Your task to perform on an android device: toggle notification dots Image 0: 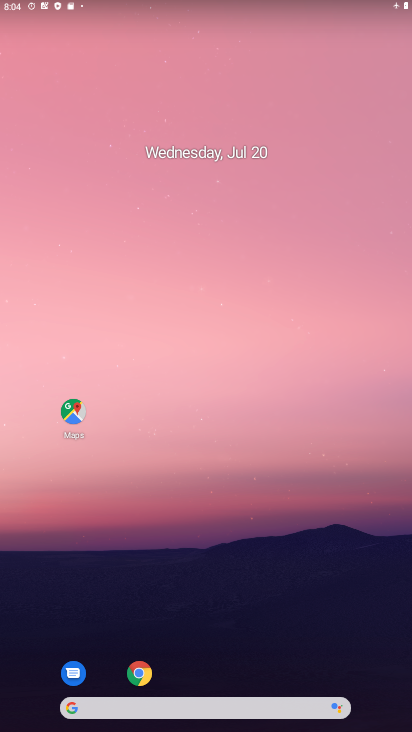
Step 0: drag from (364, 675) to (28, 132)
Your task to perform on an android device: toggle notification dots Image 1: 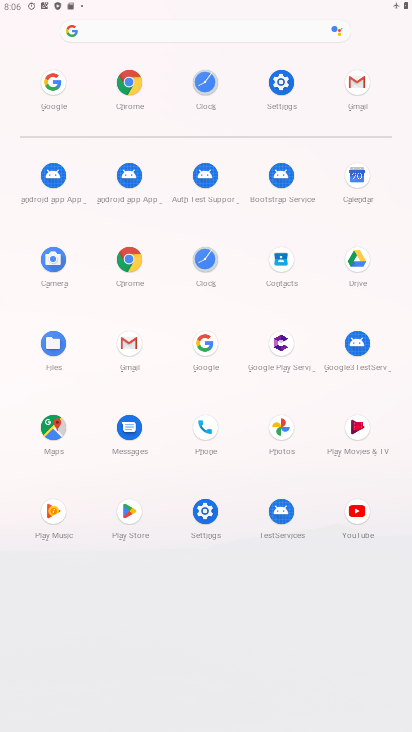
Step 1: click (213, 522)
Your task to perform on an android device: toggle notification dots Image 2: 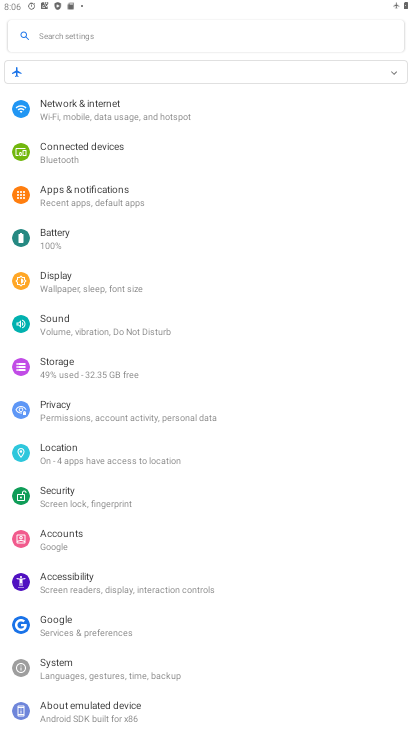
Step 2: click (115, 188)
Your task to perform on an android device: toggle notification dots Image 3: 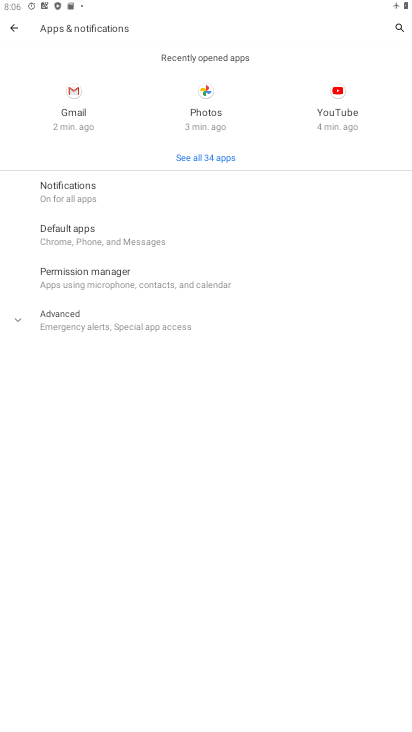
Step 3: click (115, 188)
Your task to perform on an android device: toggle notification dots Image 4: 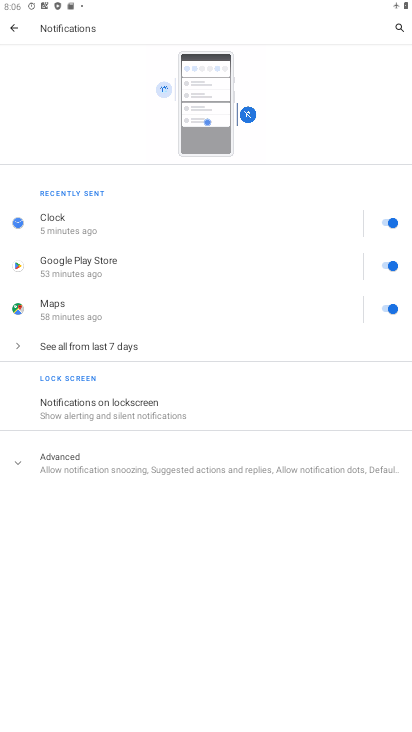
Step 4: click (69, 476)
Your task to perform on an android device: toggle notification dots Image 5: 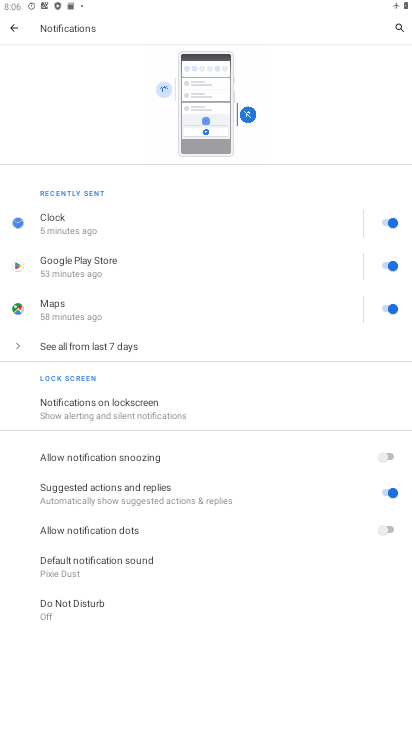
Step 5: click (148, 531)
Your task to perform on an android device: toggle notification dots Image 6: 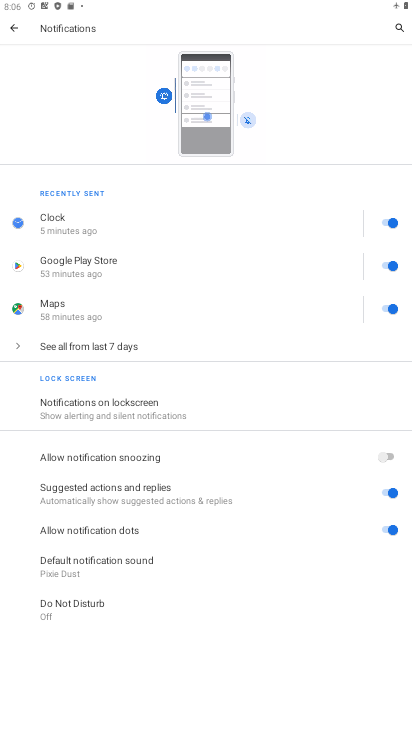
Step 6: task complete